Your task to perform on an android device: What's the weather? Image 0: 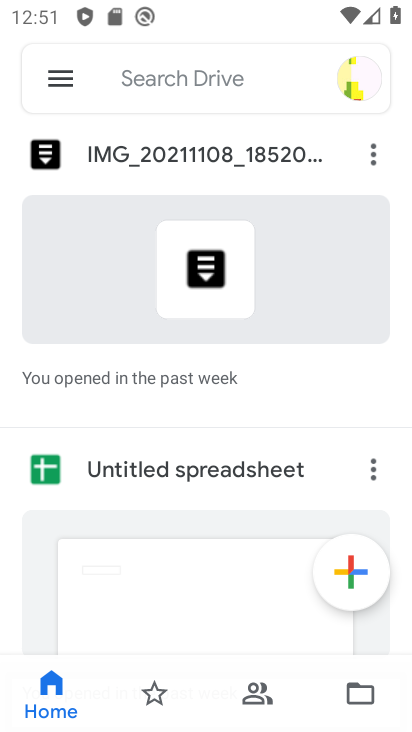
Step 0: press home button
Your task to perform on an android device: What's the weather? Image 1: 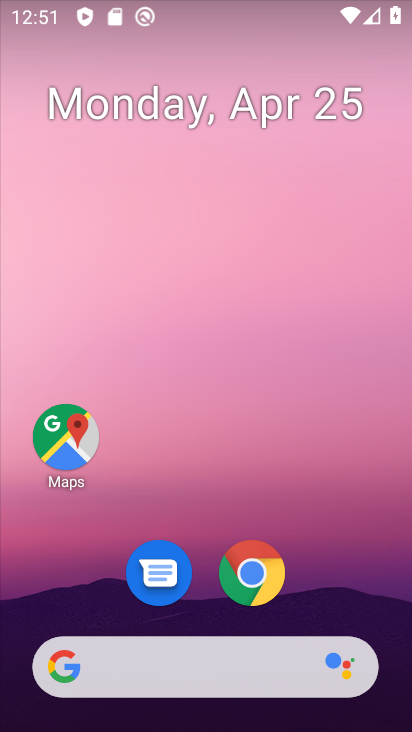
Step 1: click (186, 665)
Your task to perform on an android device: What's the weather? Image 2: 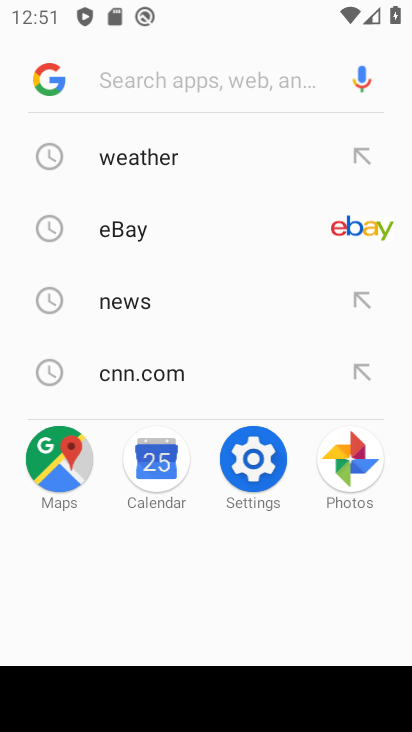
Step 2: click (152, 158)
Your task to perform on an android device: What's the weather? Image 3: 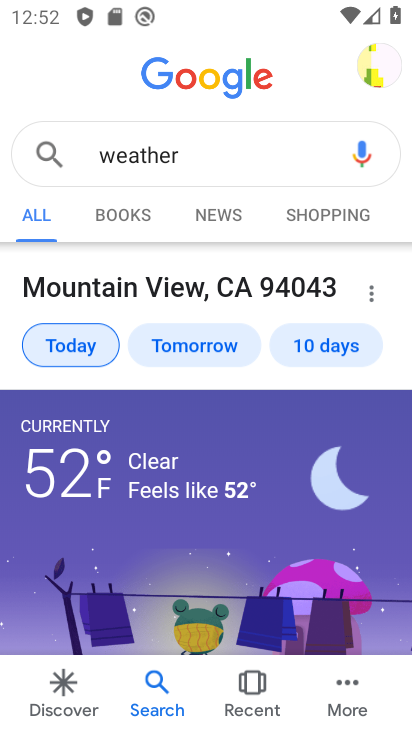
Step 3: task complete